Your task to perform on an android device: Empty the shopping cart on amazon. Search for jbl flip 4 on amazon, select the first entry, add it to the cart, then select checkout. Image 0: 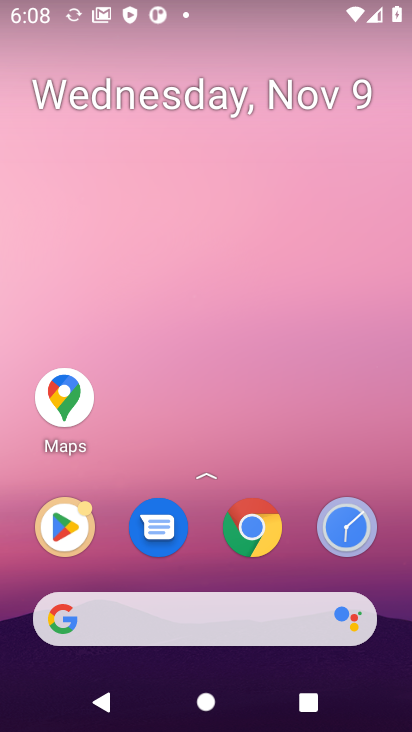
Step 0: click (241, 537)
Your task to perform on an android device: Empty the shopping cart on amazon. Search for jbl flip 4 on amazon, select the first entry, add it to the cart, then select checkout. Image 1: 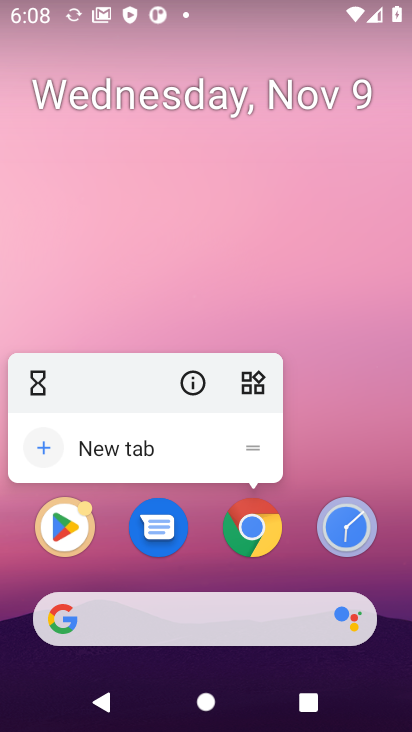
Step 1: click (255, 535)
Your task to perform on an android device: Empty the shopping cart on amazon. Search for jbl flip 4 on amazon, select the first entry, add it to the cart, then select checkout. Image 2: 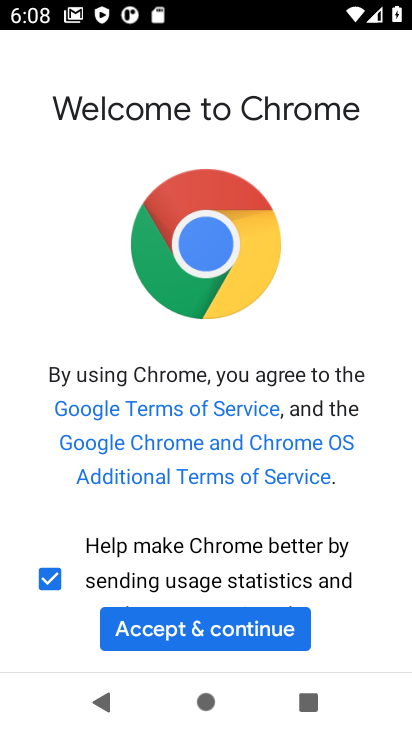
Step 2: click (213, 638)
Your task to perform on an android device: Empty the shopping cart on amazon. Search for jbl flip 4 on amazon, select the first entry, add it to the cart, then select checkout. Image 3: 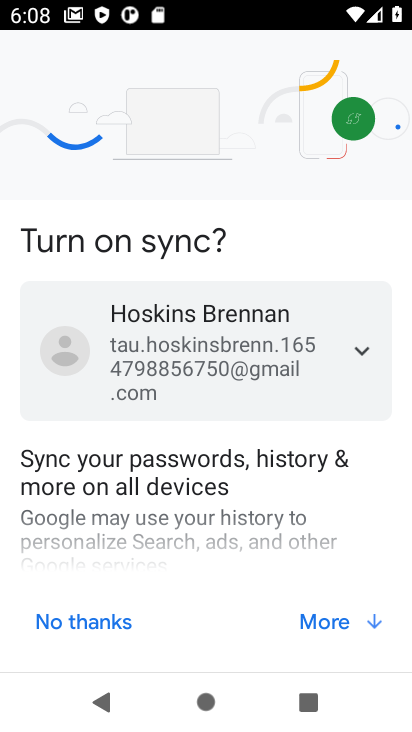
Step 3: click (79, 624)
Your task to perform on an android device: Empty the shopping cart on amazon. Search for jbl flip 4 on amazon, select the first entry, add it to the cart, then select checkout. Image 4: 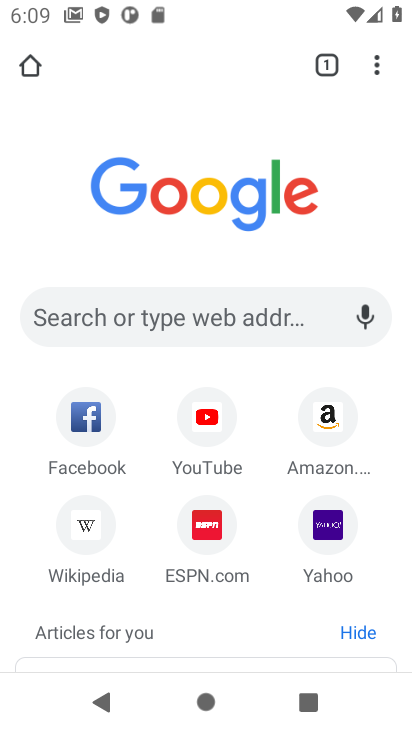
Step 4: click (323, 442)
Your task to perform on an android device: Empty the shopping cart on amazon. Search for jbl flip 4 on amazon, select the first entry, add it to the cart, then select checkout. Image 5: 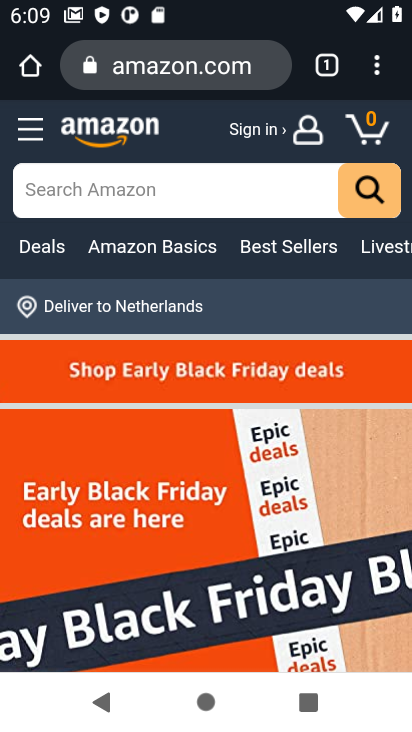
Step 5: click (359, 138)
Your task to perform on an android device: Empty the shopping cart on amazon. Search for jbl flip 4 on amazon, select the first entry, add it to the cart, then select checkout. Image 6: 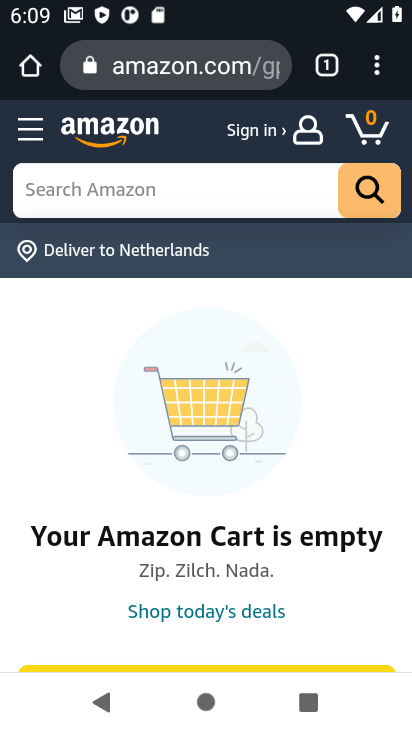
Step 6: drag from (294, 341) to (296, 269)
Your task to perform on an android device: Empty the shopping cart on amazon. Search for jbl flip 4 on amazon, select the first entry, add it to the cart, then select checkout. Image 7: 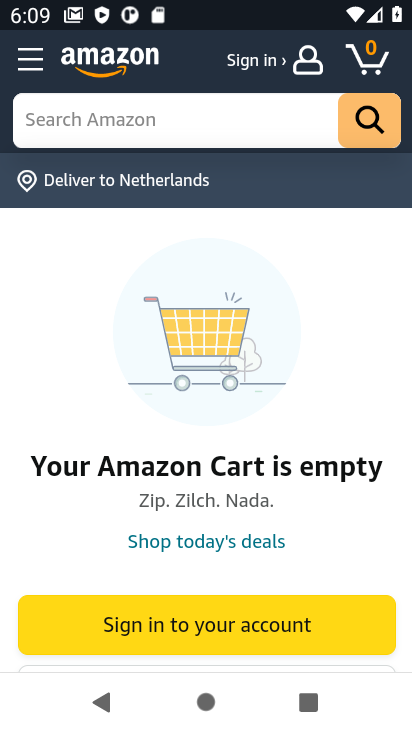
Step 7: click (193, 118)
Your task to perform on an android device: Empty the shopping cart on amazon. Search for jbl flip 4 on amazon, select the first entry, add it to the cart, then select checkout. Image 8: 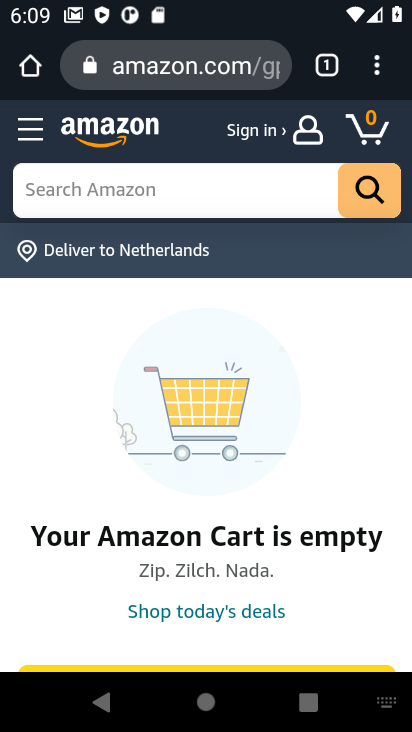
Step 8: type "jbl flip 4"
Your task to perform on an android device: Empty the shopping cart on amazon. Search for jbl flip 4 on amazon, select the first entry, add it to the cart, then select checkout. Image 9: 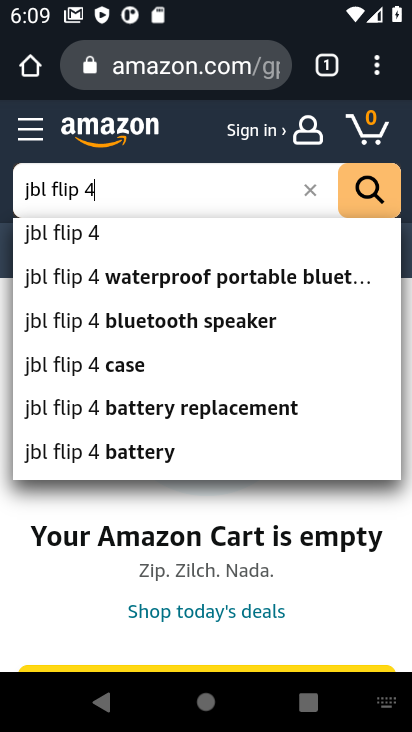
Step 9: click (75, 238)
Your task to perform on an android device: Empty the shopping cart on amazon. Search for jbl flip 4 on amazon, select the first entry, add it to the cart, then select checkout. Image 10: 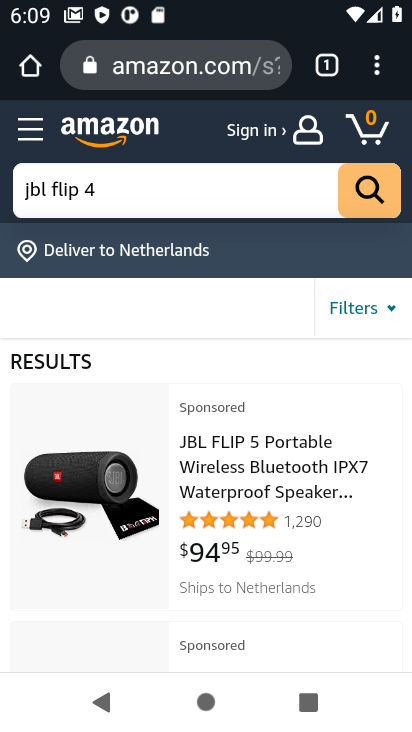
Step 10: task complete